Your task to perform on an android device: delete location history Image 0: 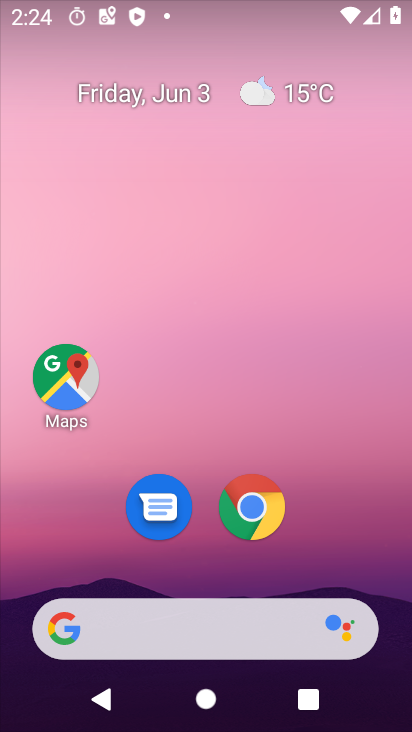
Step 0: drag from (393, 643) to (243, 52)
Your task to perform on an android device: delete location history Image 1: 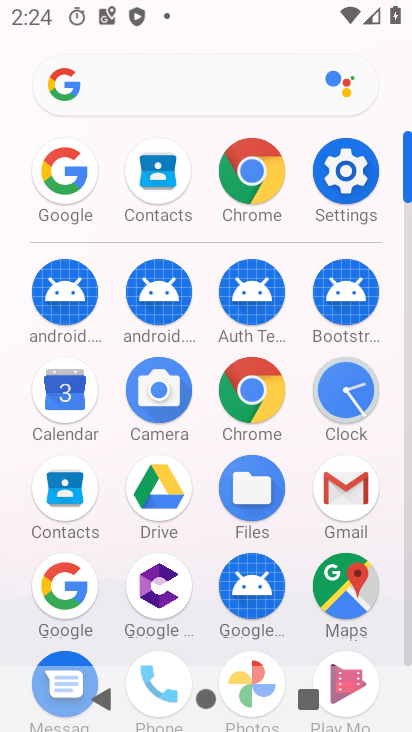
Step 1: click (356, 184)
Your task to perform on an android device: delete location history Image 2: 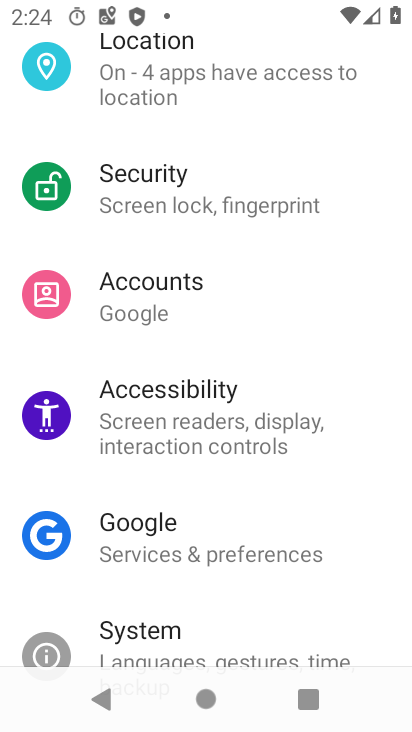
Step 2: click (210, 86)
Your task to perform on an android device: delete location history Image 3: 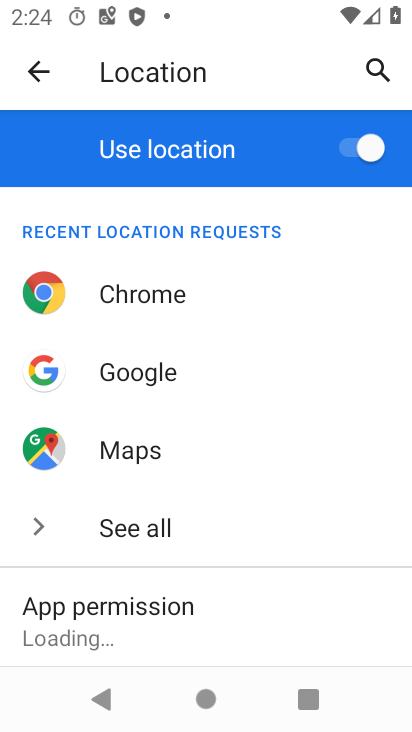
Step 3: drag from (193, 619) to (207, 235)
Your task to perform on an android device: delete location history Image 4: 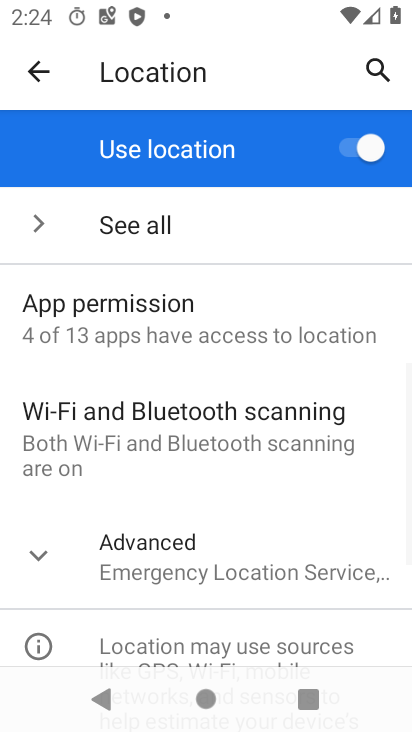
Step 4: click (171, 560)
Your task to perform on an android device: delete location history Image 5: 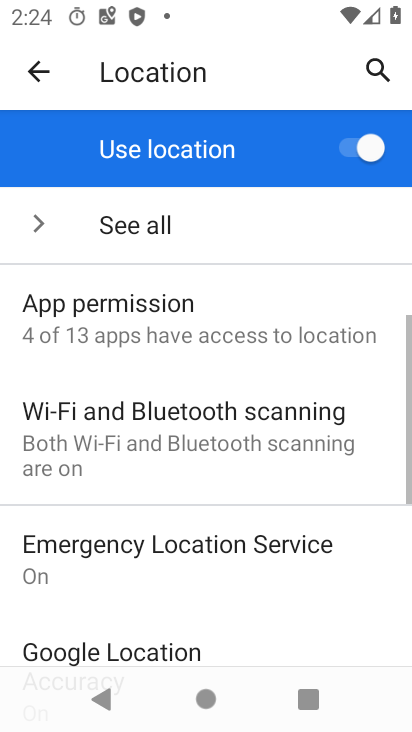
Step 5: drag from (173, 638) to (219, 289)
Your task to perform on an android device: delete location history Image 6: 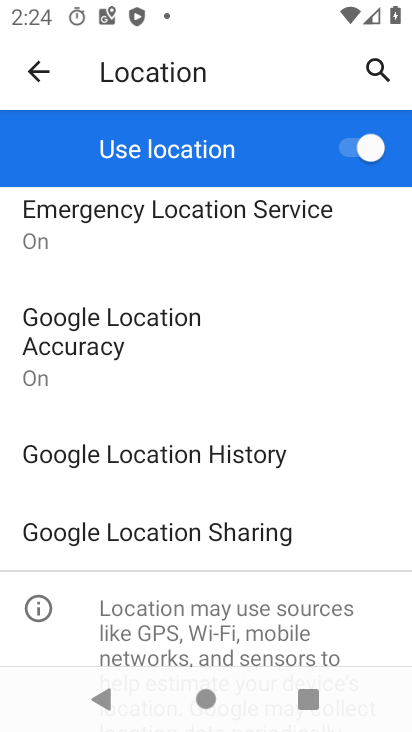
Step 6: click (233, 453)
Your task to perform on an android device: delete location history Image 7: 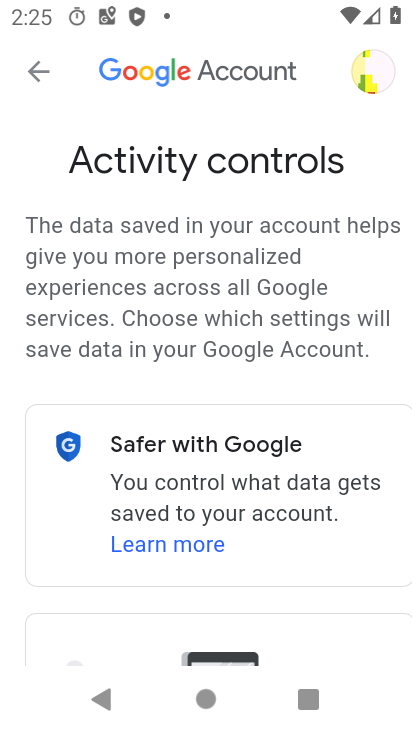
Step 7: drag from (287, 593) to (151, 111)
Your task to perform on an android device: delete location history Image 8: 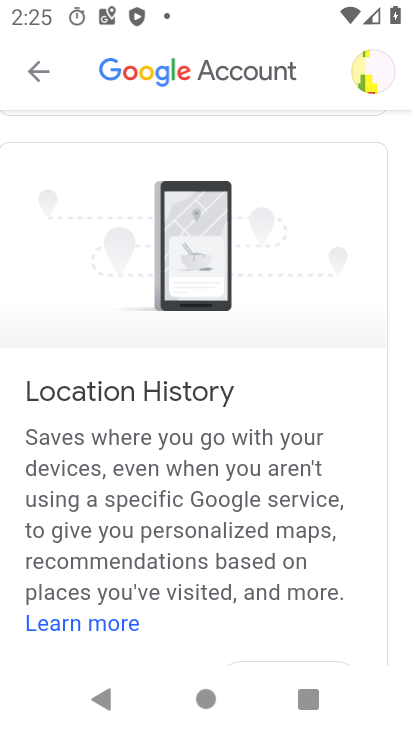
Step 8: drag from (281, 521) to (200, 180)
Your task to perform on an android device: delete location history Image 9: 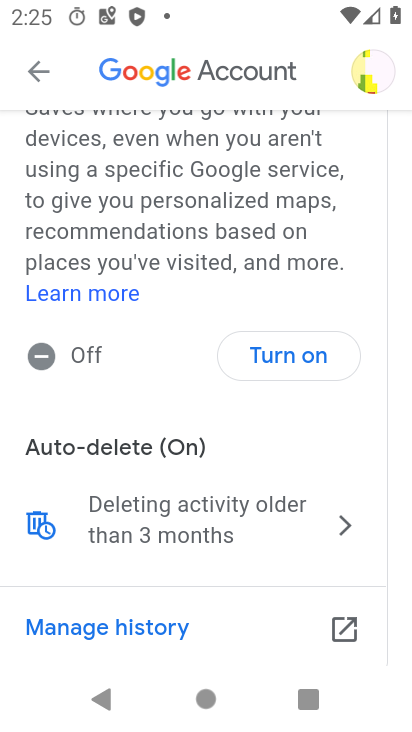
Step 9: click (237, 503)
Your task to perform on an android device: delete location history Image 10: 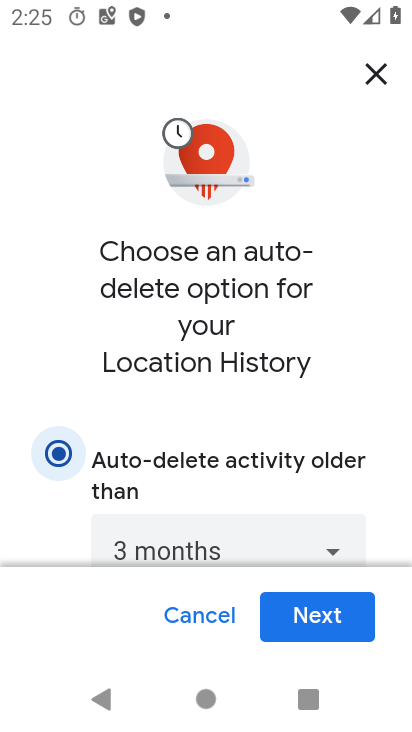
Step 10: click (315, 617)
Your task to perform on an android device: delete location history Image 11: 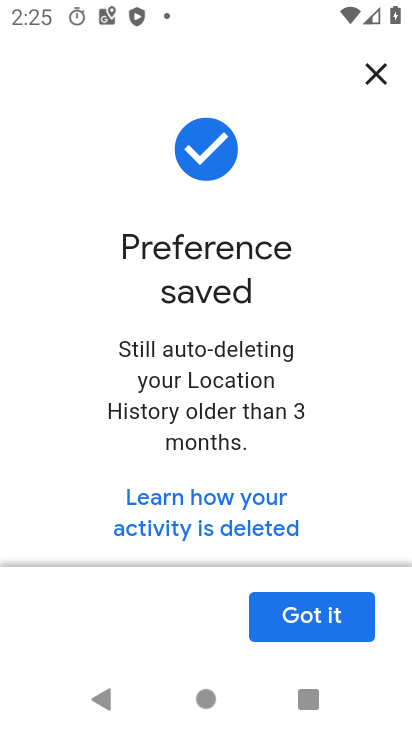
Step 11: click (315, 616)
Your task to perform on an android device: delete location history Image 12: 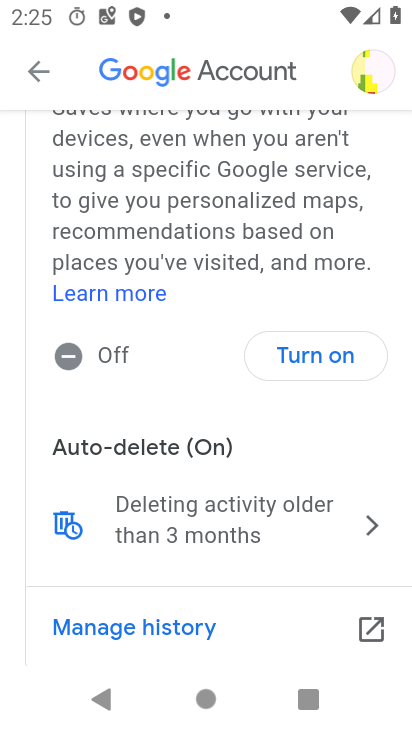
Step 12: task complete